Your task to perform on an android device: choose inbox layout in the gmail app Image 0: 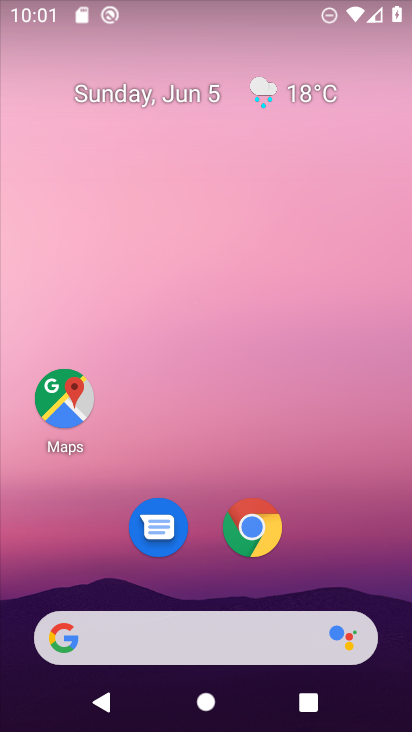
Step 0: drag from (252, 603) to (248, 29)
Your task to perform on an android device: choose inbox layout in the gmail app Image 1: 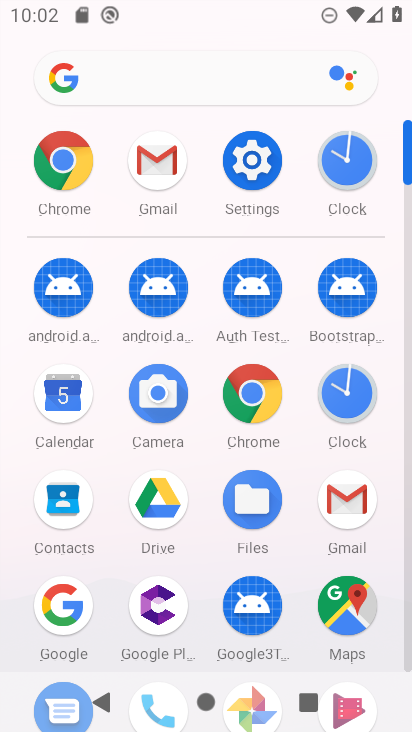
Step 1: click (160, 160)
Your task to perform on an android device: choose inbox layout in the gmail app Image 2: 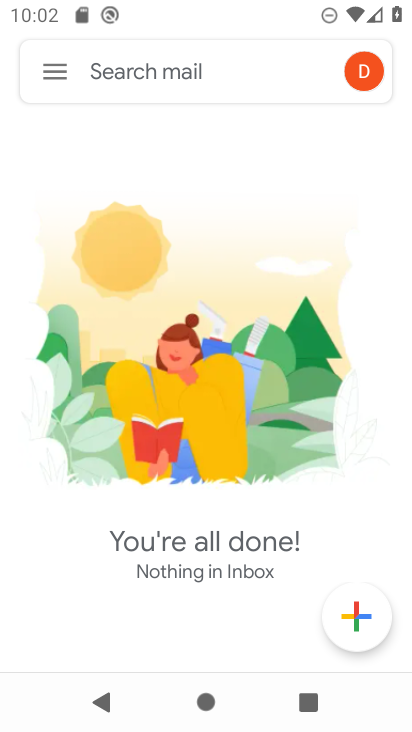
Step 2: click (47, 63)
Your task to perform on an android device: choose inbox layout in the gmail app Image 3: 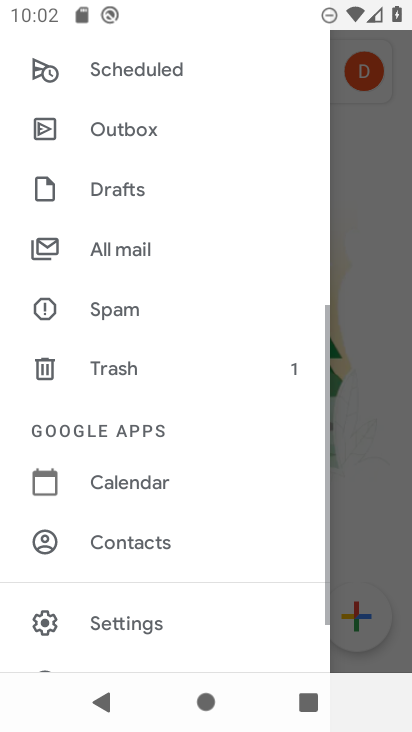
Step 3: click (121, 618)
Your task to perform on an android device: choose inbox layout in the gmail app Image 4: 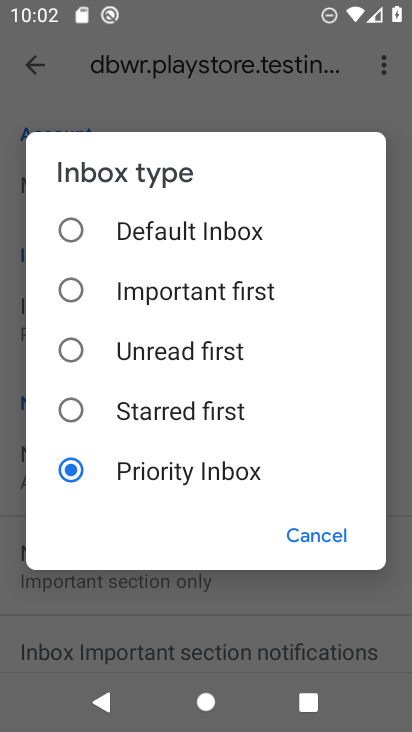
Step 4: click (73, 218)
Your task to perform on an android device: choose inbox layout in the gmail app Image 5: 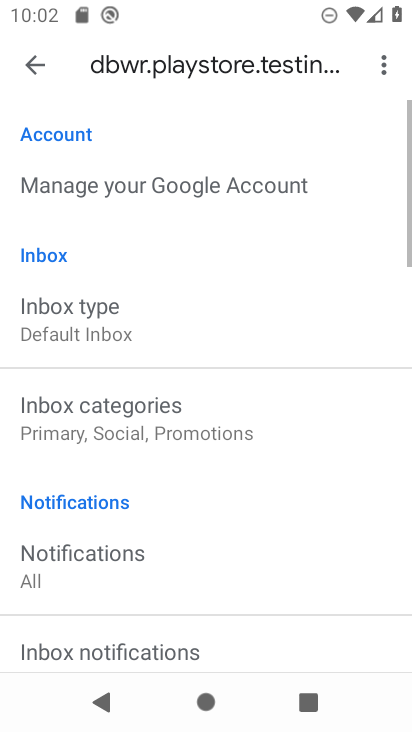
Step 5: task complete